Your task to perform on an android device: turn on translation in the chrome app Image 0: 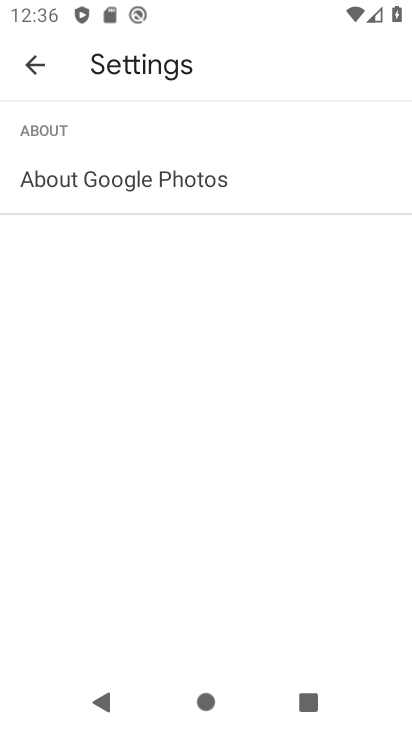
Step 0: press home button
Your task to perform on an android device: turn on translation in the chrome app Image 1: 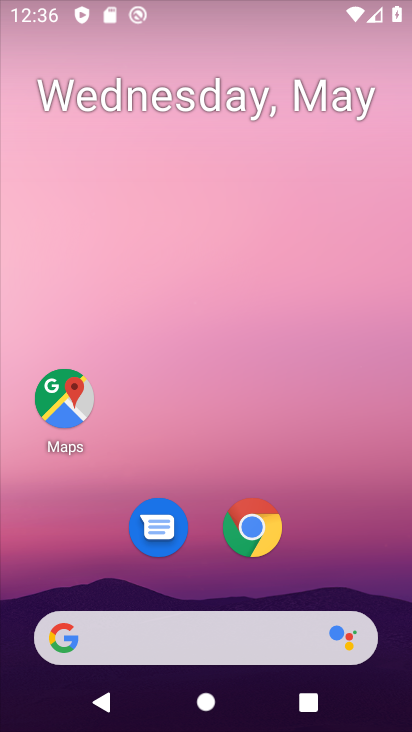
Step 1: click (259, 542)
Your task to perform on an android device: turn on translation in the chrome app Image 2: 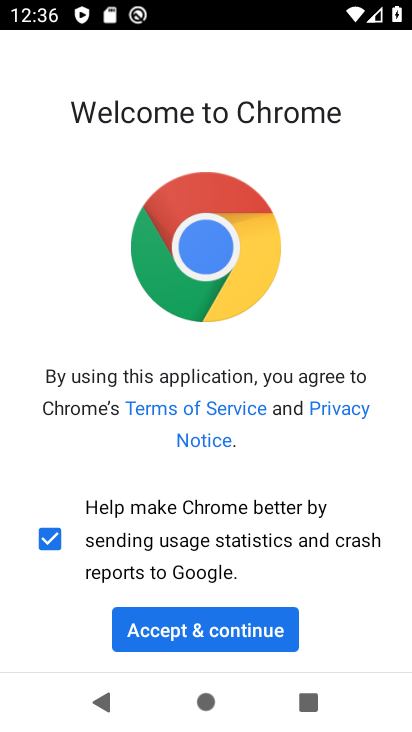
Step 2: click (226, 647)
Your task to perform on an android device: turn on translation in the chrome app Image 3: 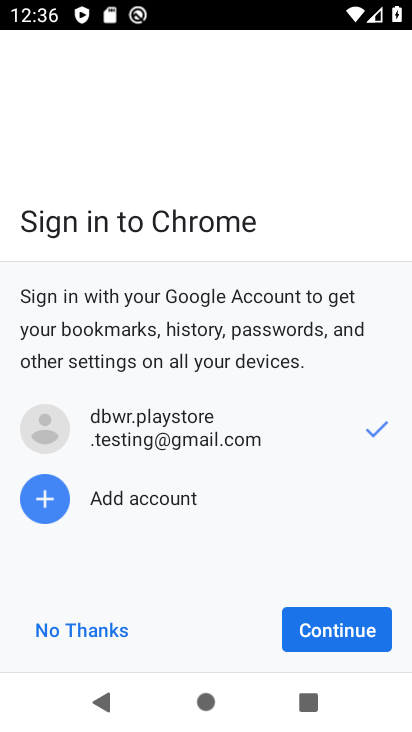
Step 3: click (343, 622)
Your task to perform on an android device: turn on translation in the chrome app Image 4: 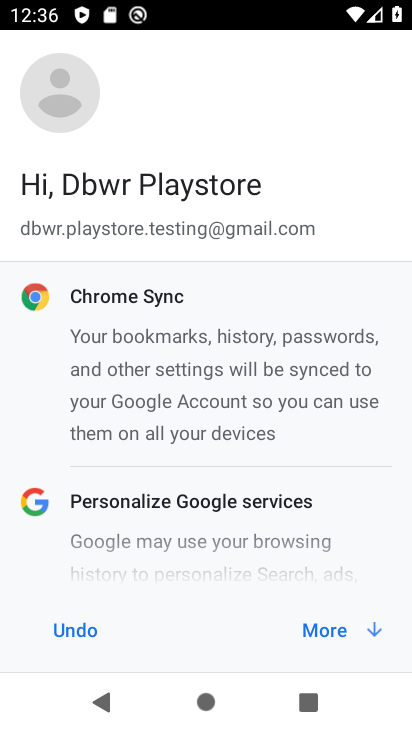
Step 4: click (335, 629)
Your task to perform on an android device: turn on translation in the chrome app Image 5: 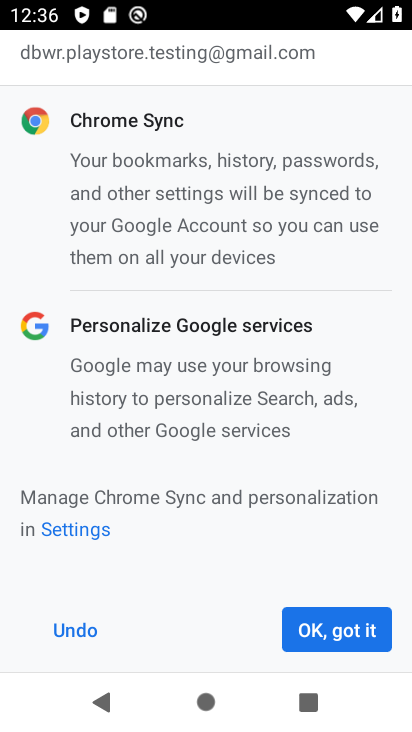
Step 5: click (338, 623)
Your task to perform on an android device: turn on translation in the chrome app Image 6: 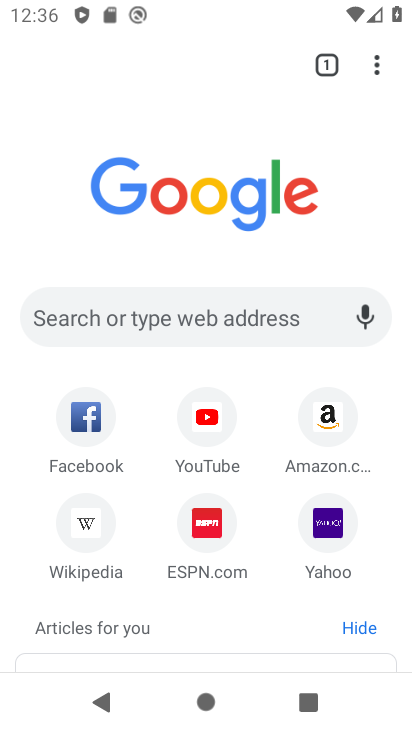
Step 6: click (378, 62)
Your task to perform on an android device: turn on translation in the chrome app Image 7: 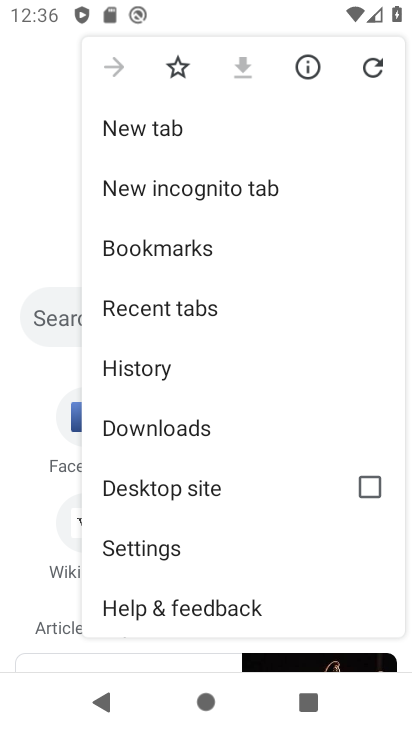
Step 7: click (144, 548)
Your task to perform on an android device: turn on translation in the chrome app Image 8: 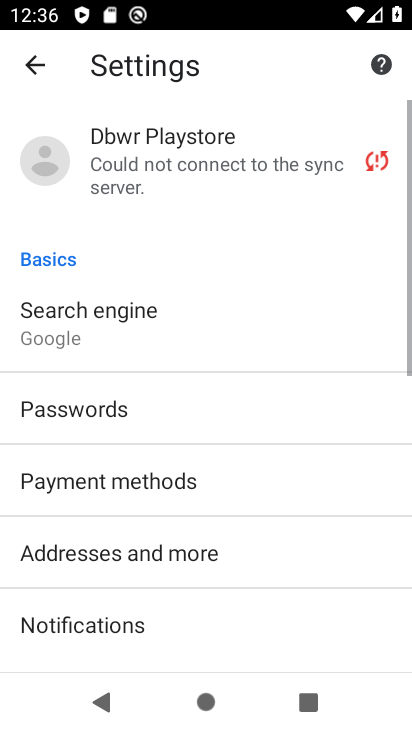
Step 8: drag from (152, 584) to (166, 191)
Your task to perform on an android device: turn on translation in the chrome app Image 9: 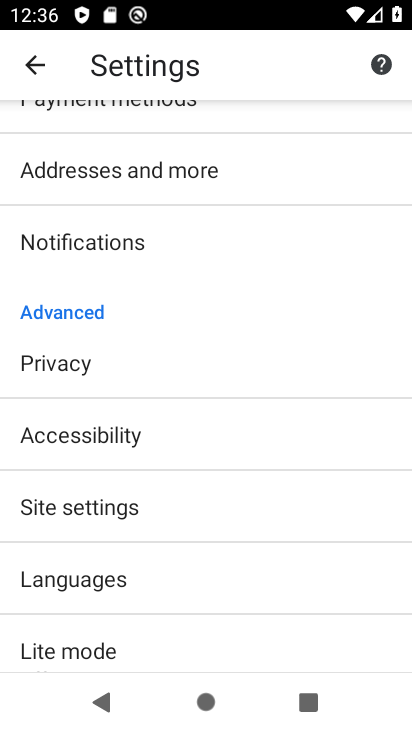
Step 9: click (95, 583)
Your task to perform on an android device: turn on translation in the chrome app Image 10: 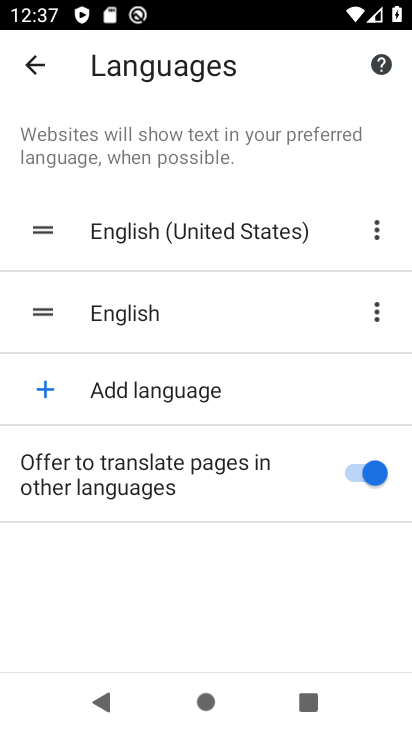
Step 10: task complete